Your task to perform on an android device: Open Google Chrome and click the shortcut for Amazon.com Image 0: 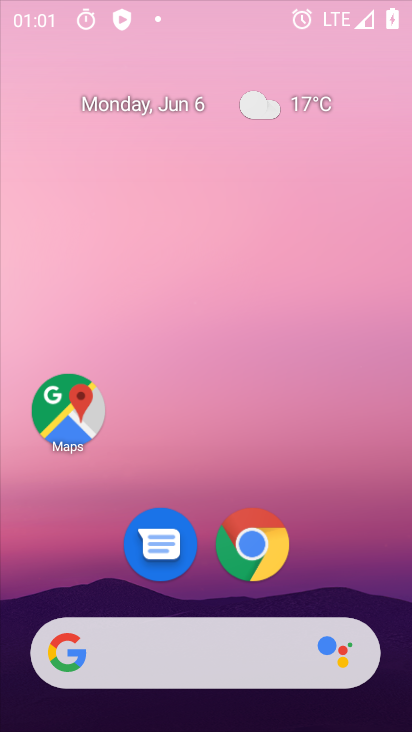
Step 0: drag from (317, 274) to (279, 173)
Your task to perform on an android device: Open Google Chrome and click the shortcut for Amazon.com Image 1: 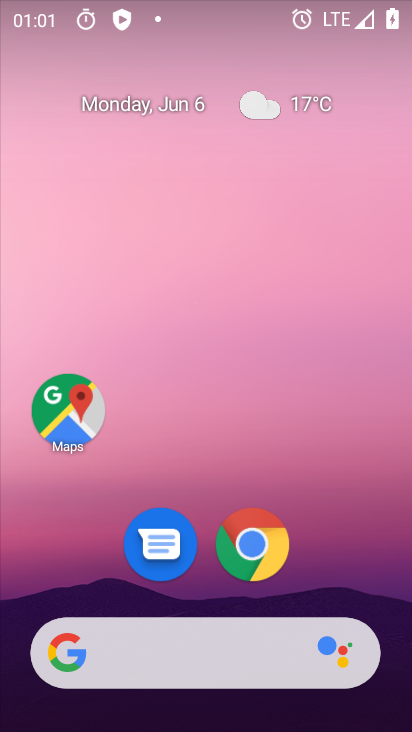
Step 1: click (257, 543)
Your task to perform on an android device: Open Google Chrome and click the shortcut for Amazon.com Image 2: 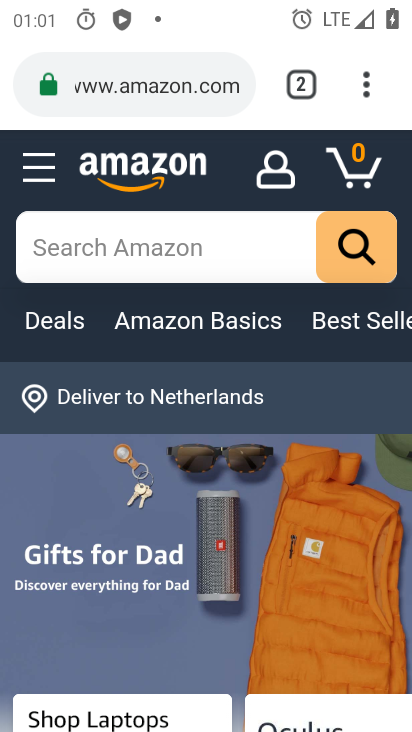
Step 2: task complete